Your task to perform on an android device: Search for vegetarian restaurants on Maps Image 0: 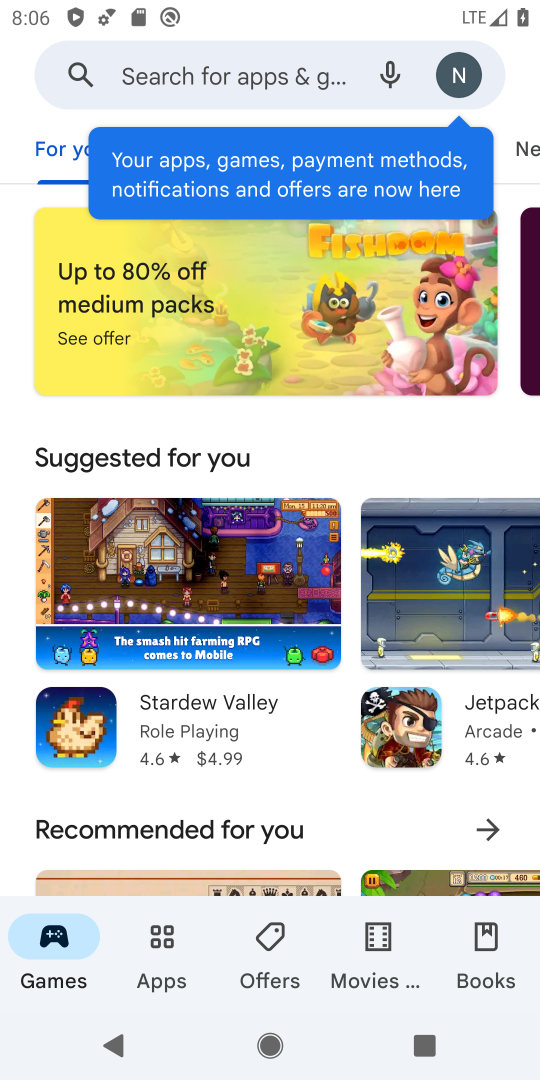
Step 0: press home button
Your task to perform on an android device: Search for vegetarian restaurants on Maps Image 1: 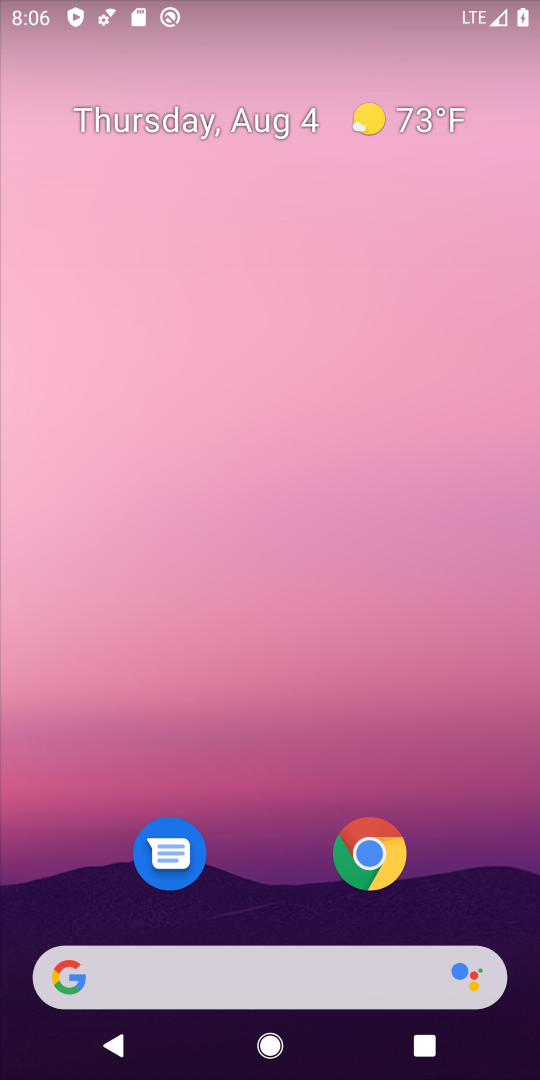
Step 1: drag from (254, 484) to (254, 248)
Your task to perform on an android device: Search for vegetarian restaurants on Maps Image 2: 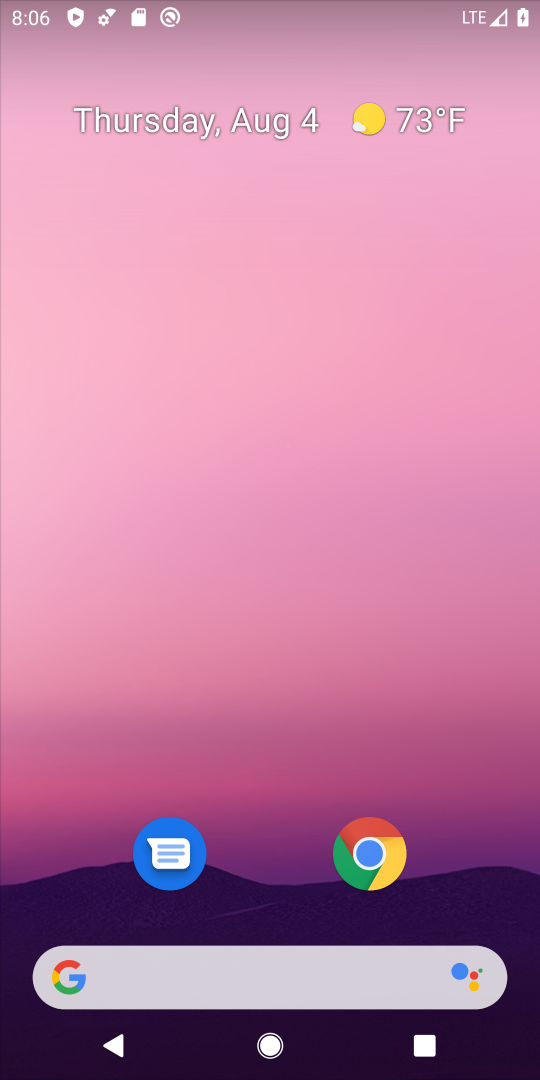
Step 2: drag from (304, 882) to (360, 333)
Your task to perform on an android device: Search for vegetarian restaurants on Maps Image 3: 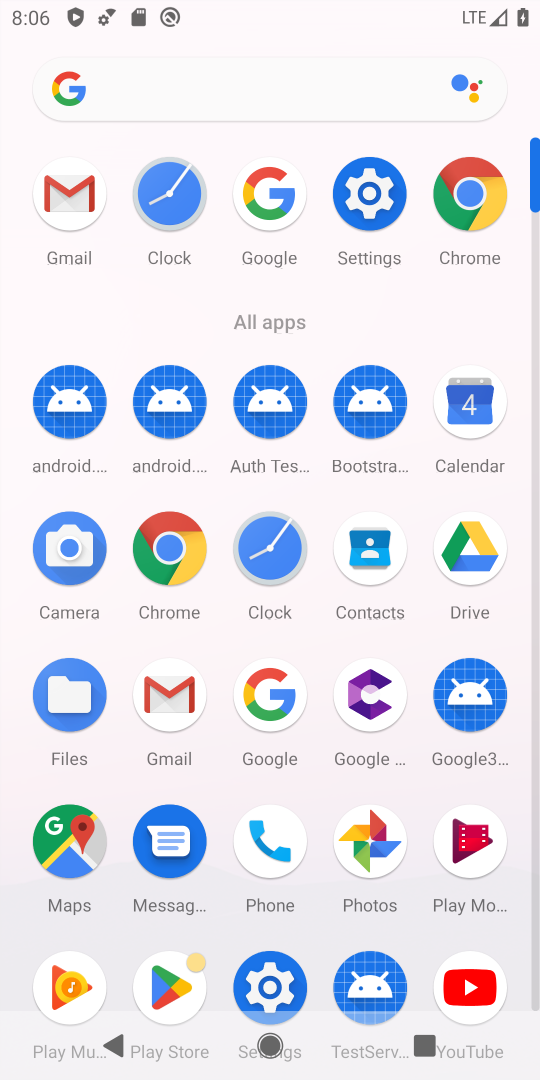
Step 3: click (71, 834)
Your task to perform on an android device: Search for vegetarian restaurants on Maps Image 4: 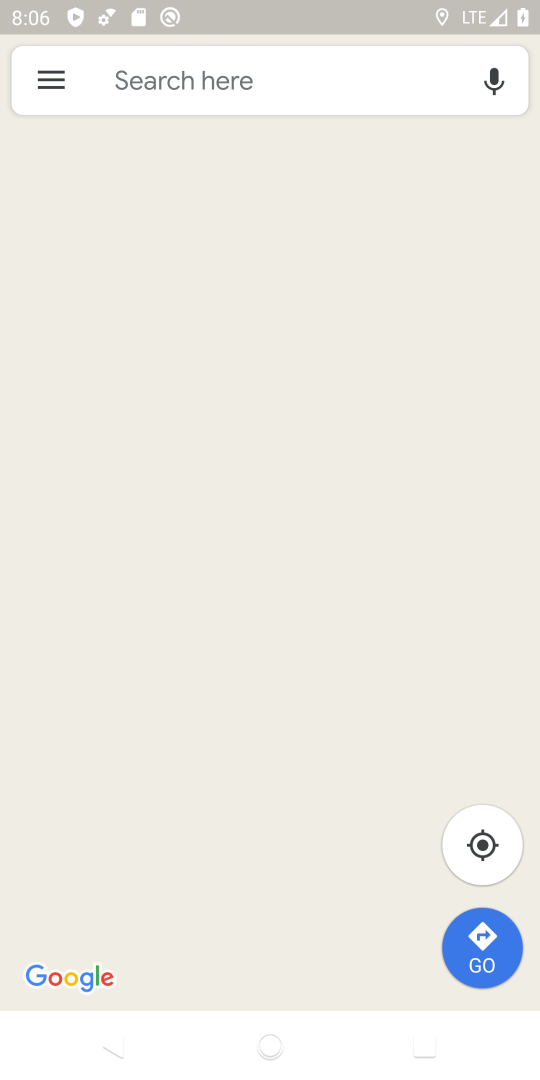
Step 4: click (239, 84)
Your task to perform on an android device: Search for vegetarian restaurants on Maps Image 5: 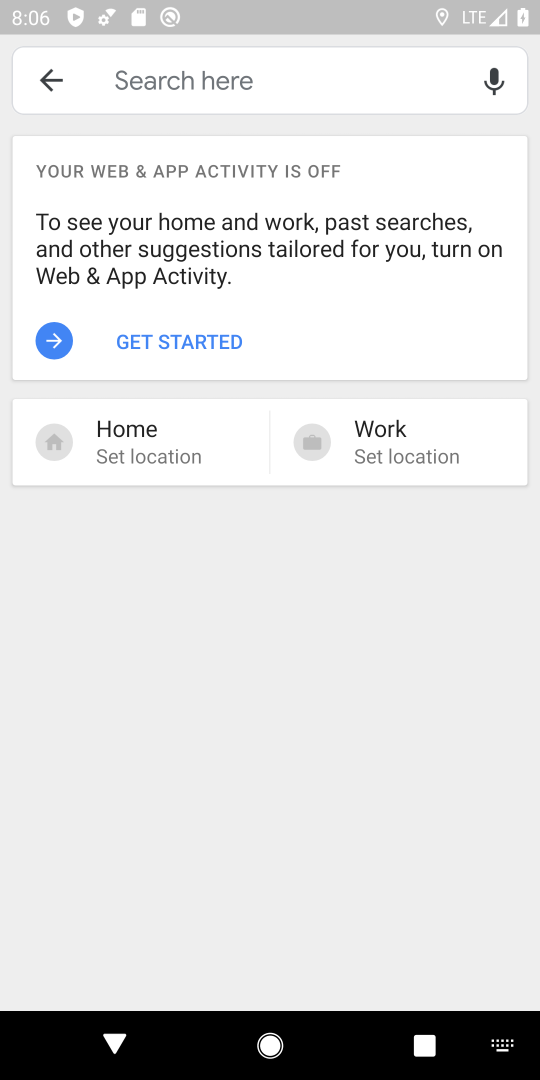
Step 5: click (154, 75)
Your task to perform on an android device: Search for vegetarian restaurants on Maps Image 6: 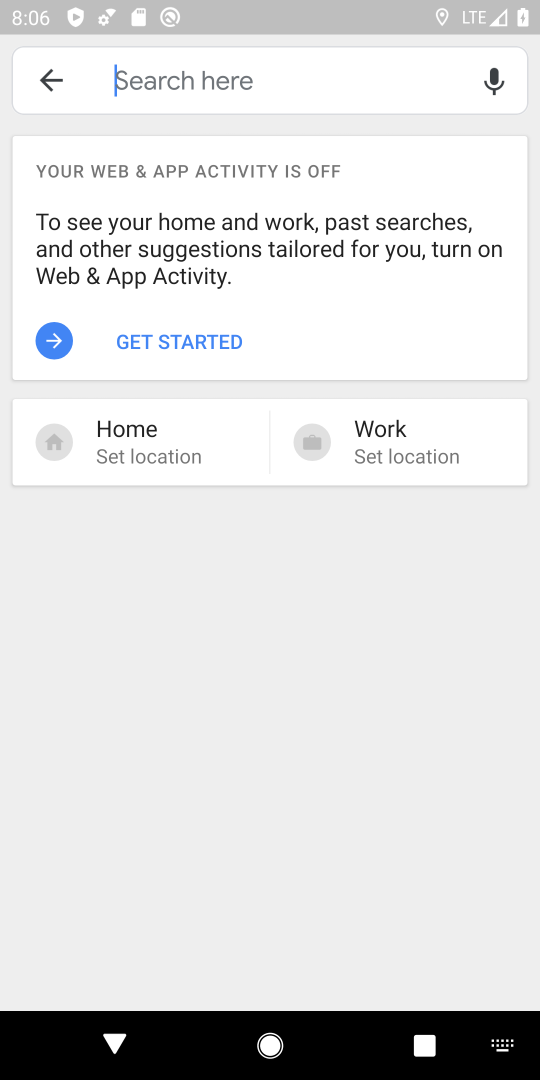
Step 6: click (179, 77)
Your task to perform on an android device: Search for vegetarian restaurants on Maps Image 7: 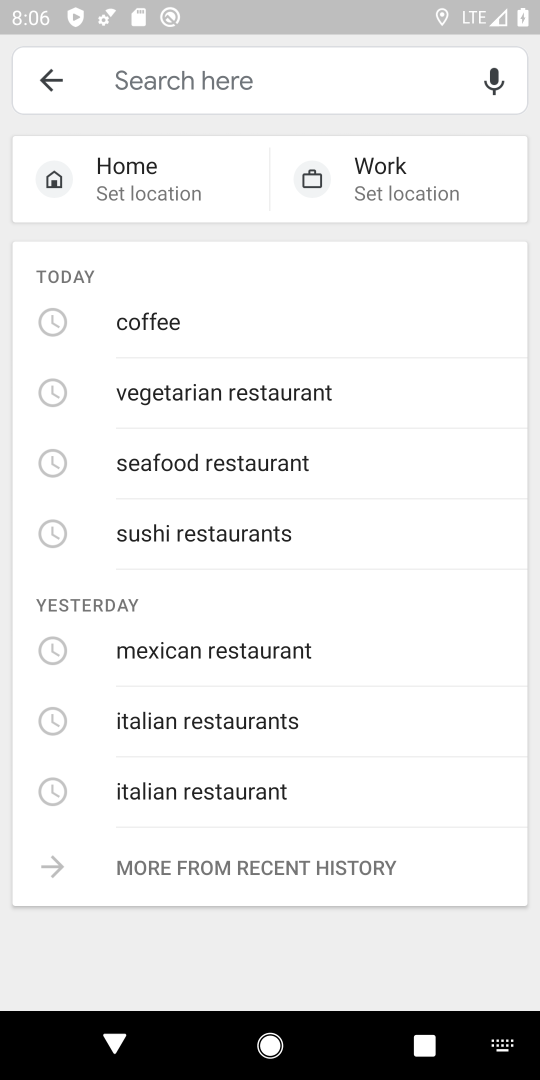
Step 7: click (213, 386)
Your task to perform on an android device: Search for vegetarian restaurants on Maps Image 8: 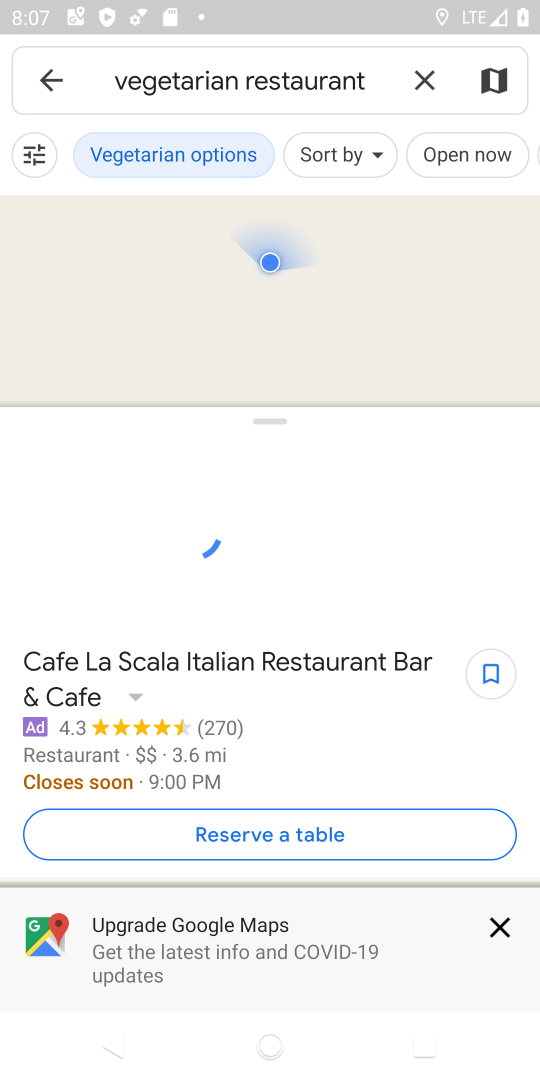
Step 8: task complete